Your task to perform on an android device: install app "Viber Messenger" Image 0: 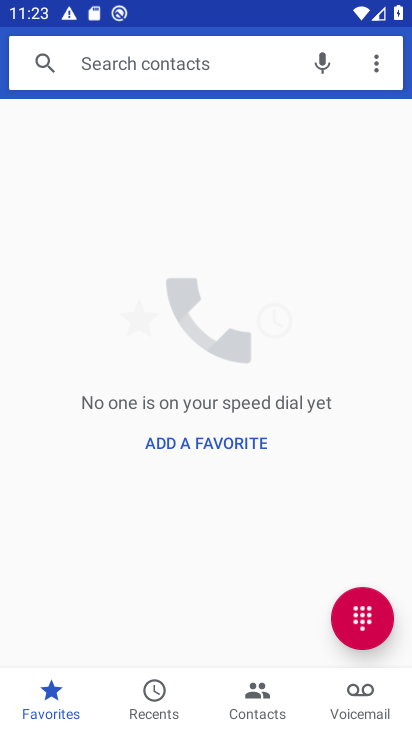
Step 0: press home button
Your task to perform on an android device: install app "Viber Messenger" Image 1: 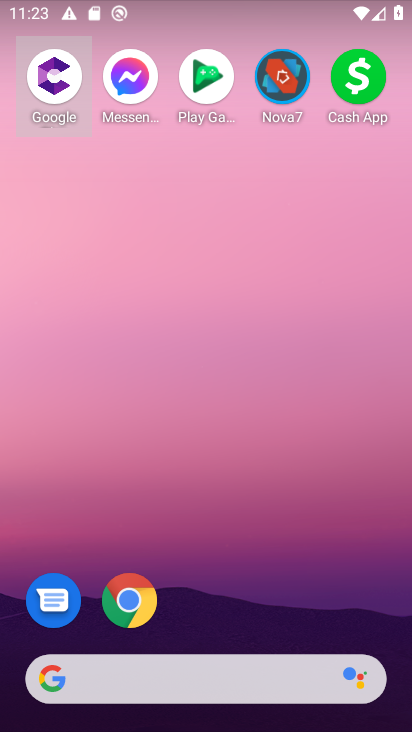
Step 1: drag from (273, 547) to (352, 16)
Your task to perform on an android device: install app "Viber Messenger" Image 2: 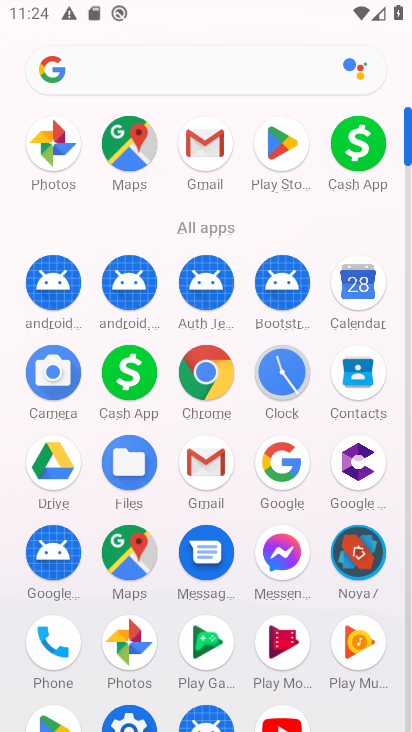
Step 2: click (279, 136)
Your task to perform on an android device: install app "Viber Messenger" Image 3: 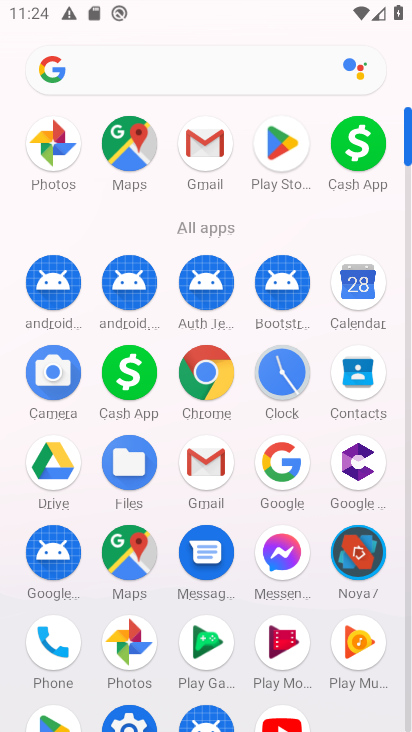
Step 3: click (279, 136)
Your task to perform on an android device: install app "Viber Messenger" Image 4: 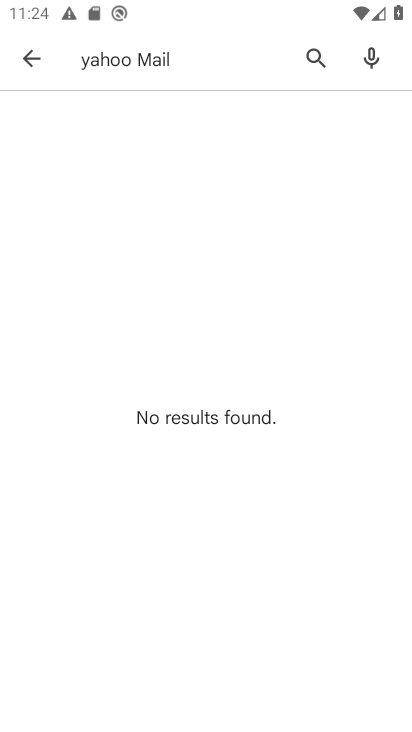
Step 4: click (313, 57)
Your task to perform on an android device: install app "Viber Messenger" Image 5: 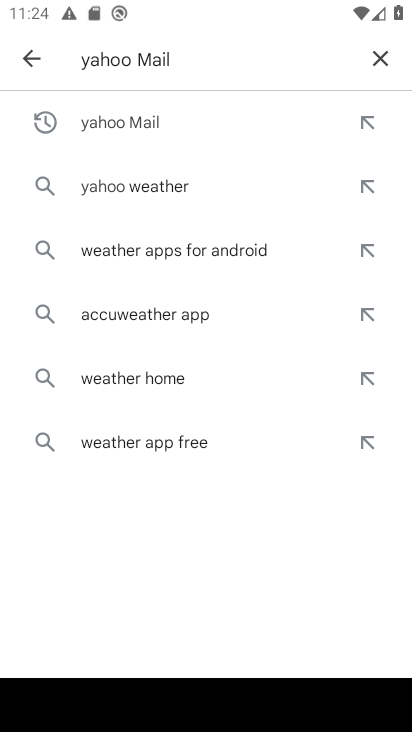
Step 5: click (376, 56)
Your task to perform on an android device: install app "Viber Messenger" Image 6: 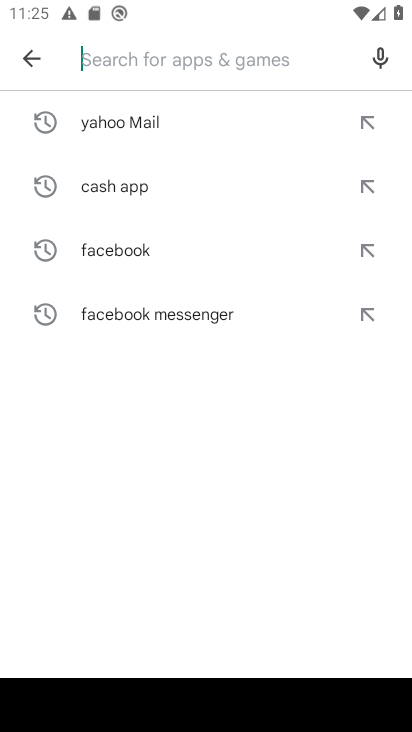
Step 6: type "Viber Messenger"
Your task to perform on an android device: install app "Viber Messenger" Image 7: 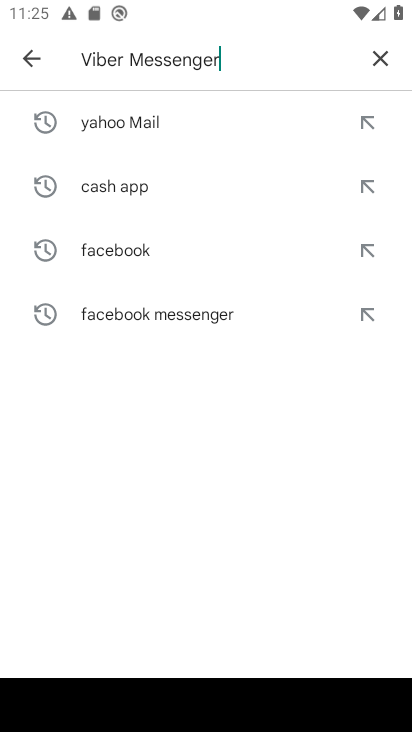
Step 7: type ""
Your task to perform on an android device: install app "Viber Messenger" Image 8: 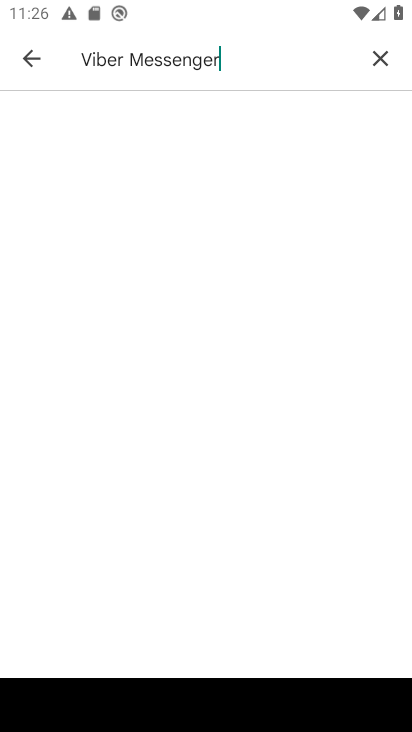
Step 8: type ""
Your task to perform on an android device: install app "Viber Messenger" Image 9: 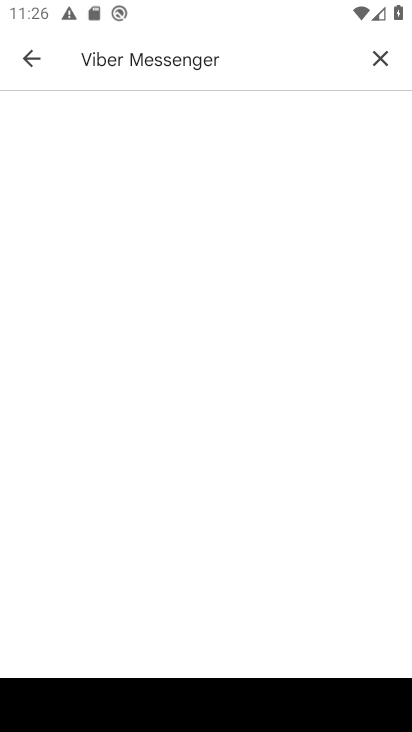
Step 9: press enter
Your task to perform on an android device: install app "Viber Messenger" Image 10: 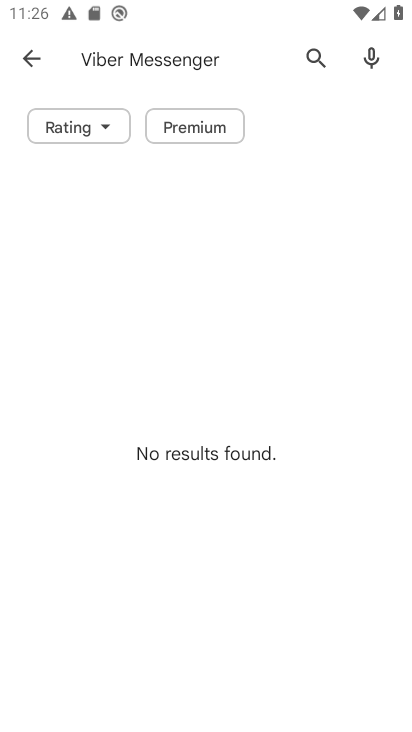
Step 10: task complete